Your task to perform on an android device: Go to Android settings Image 0: 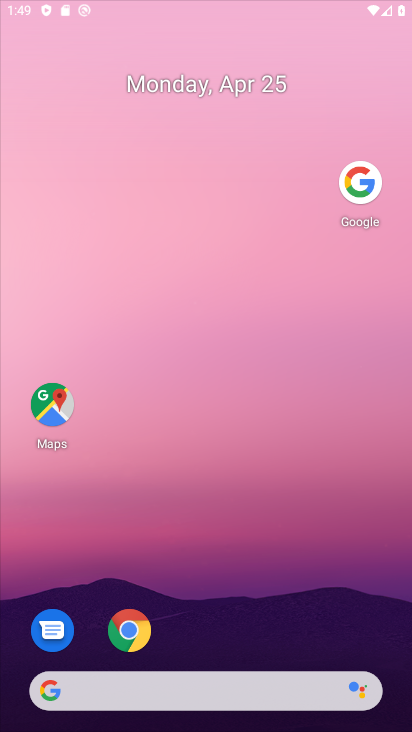
Step 0: drag from (213, 601) to (209, 2)
Your task to perform on an android device: Go to Android settings Image 1: 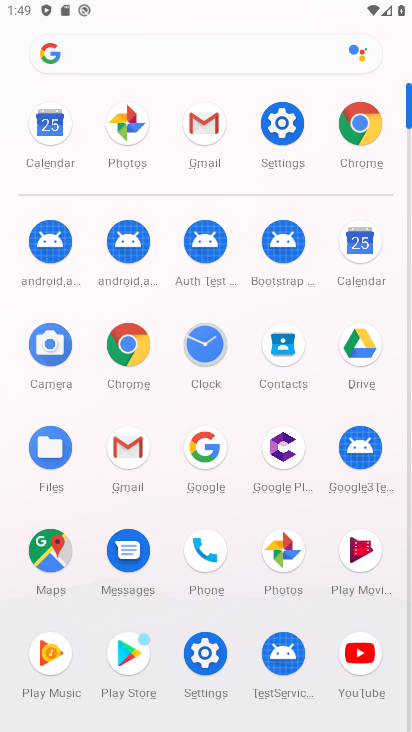
Step 1: click (283, 126)
Your task to perform on an android device: Go to Android settings Image 2: 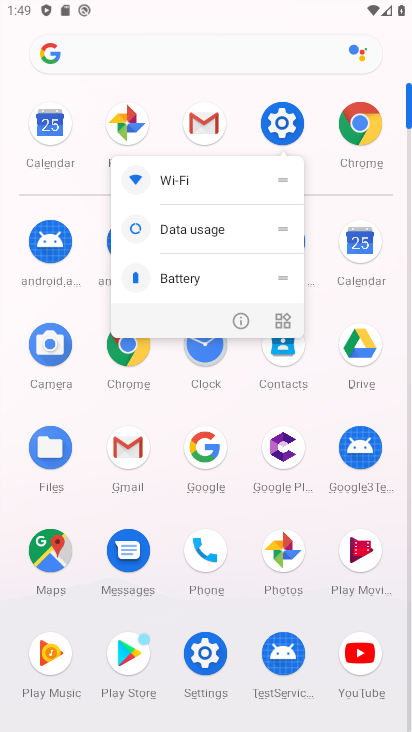
Step 2: click (276, 133)
Your task to perform on an android device: Go to Android settings Image 3: 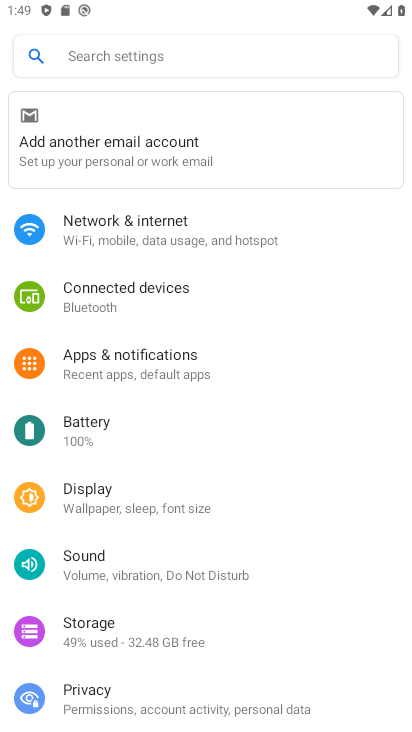
Step 3: task complete